Your task to perform on an android device: Show me popular games on the Play Store Image 0: 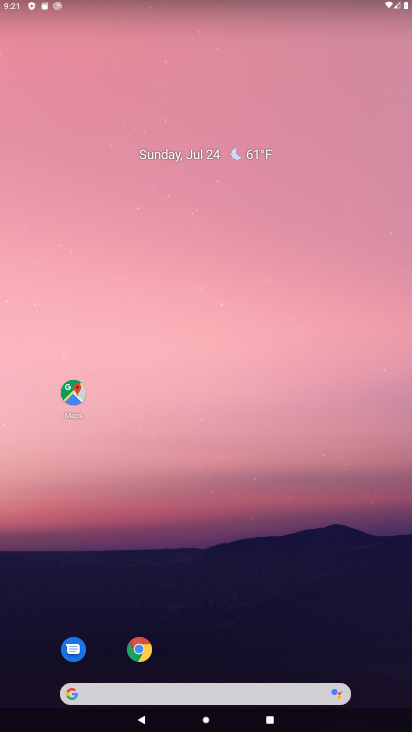
Step 0: drag from (339, 597) to (241, 3)
Your task to perform on an android device: Show me popular games on the Play Store Image 1: 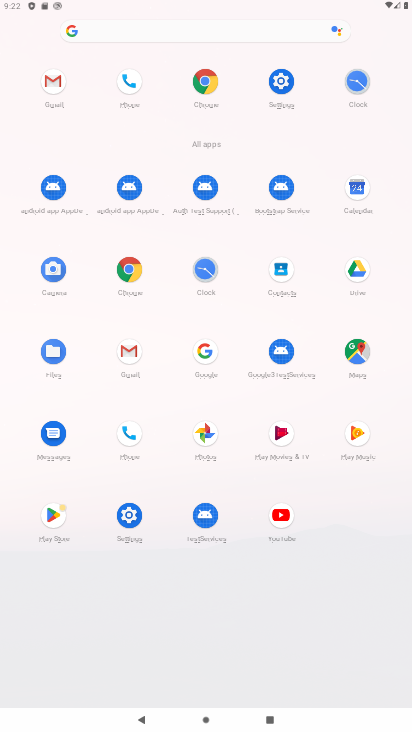
Step 1: click (60, 520)
Your task to perform on an android device: Show me popular games on the Play Store Image 2: 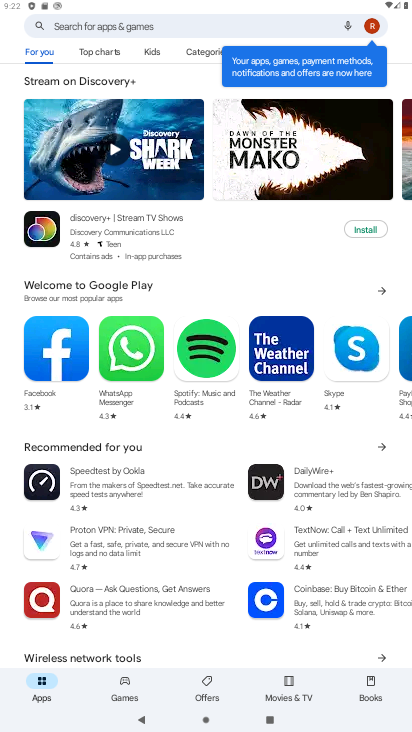
Step 2: click (237, 254)
Your task to perform on an android device: Show me popular games on the Play Store Image 3: 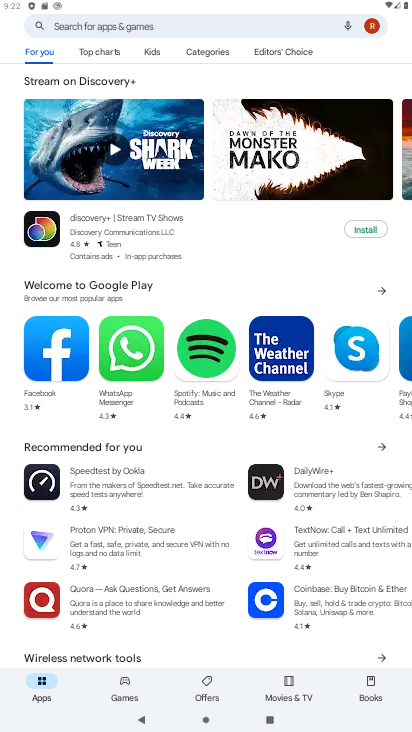
Step 3: click (124, 695)
Your task to perform on an android device: Show me popular games on the Play Store Image 4: 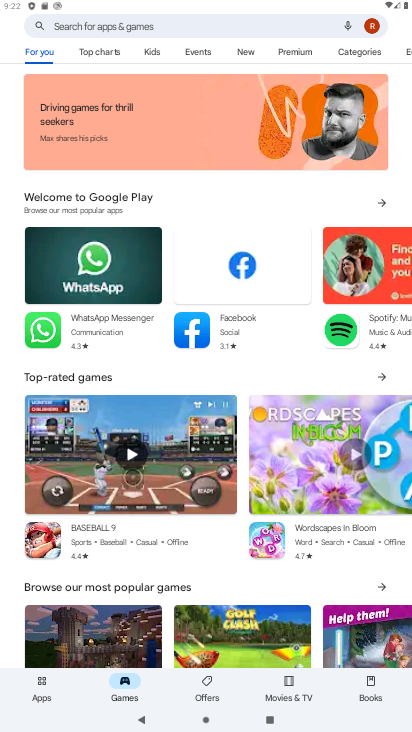
Step 4: task complete